Your task to perform on an android device: Open notification settings Image 0: 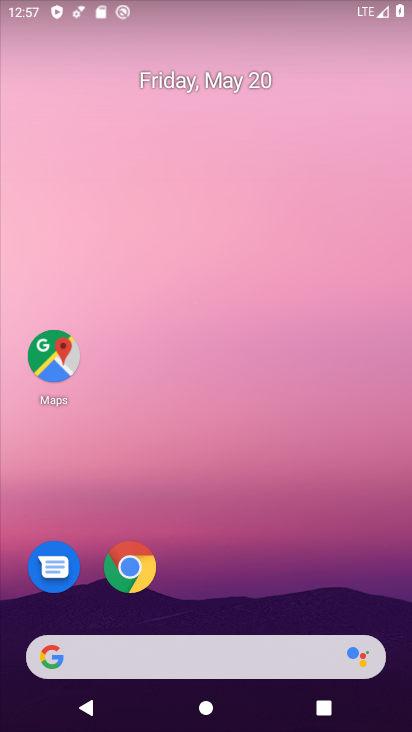
Step 0: drag from (248, 579) to (267, 126)
Your task to perform on an android device: Open notification settings Image 1: 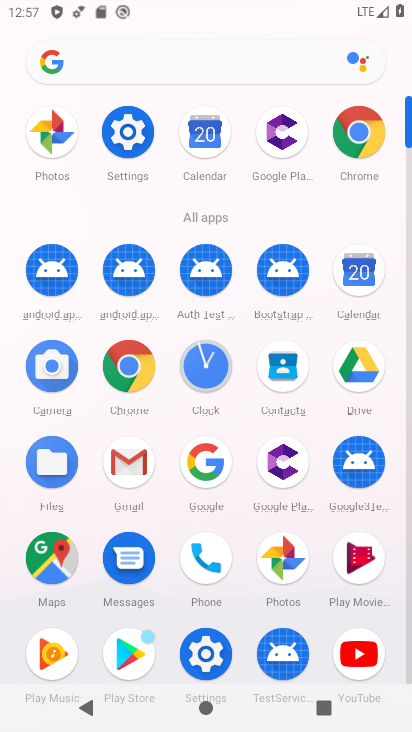
Step 1: click (127, 148)
Your task to perform on an android device: Open notification settings Image 2: 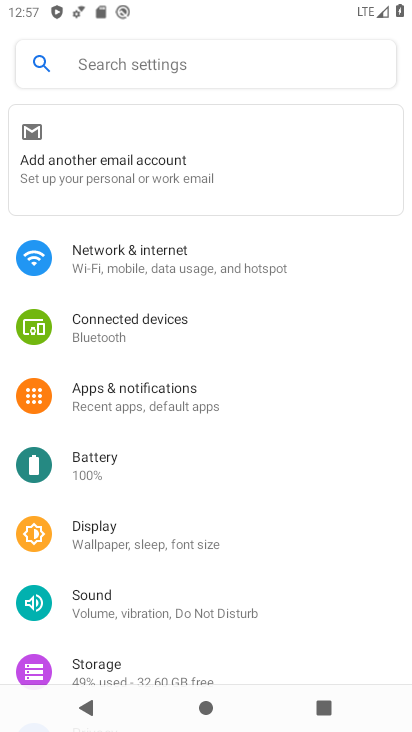
Step 2: click (171, 403)
Your task to perform on an android device: Open notification settings Image 3: 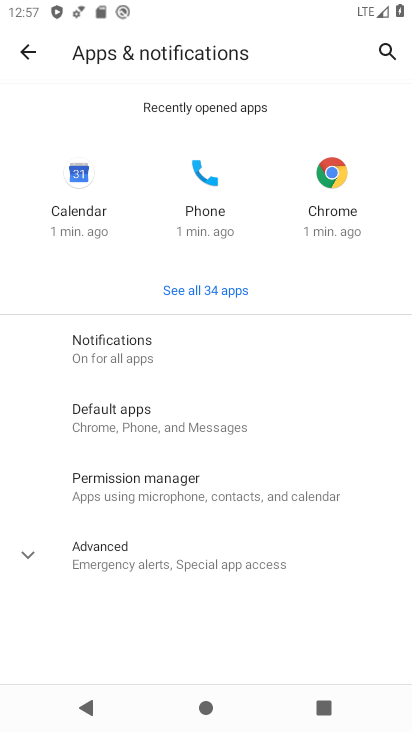
Step 3: click (213, 359)
Your task to perform on an android device: Open notification settings Image 4: 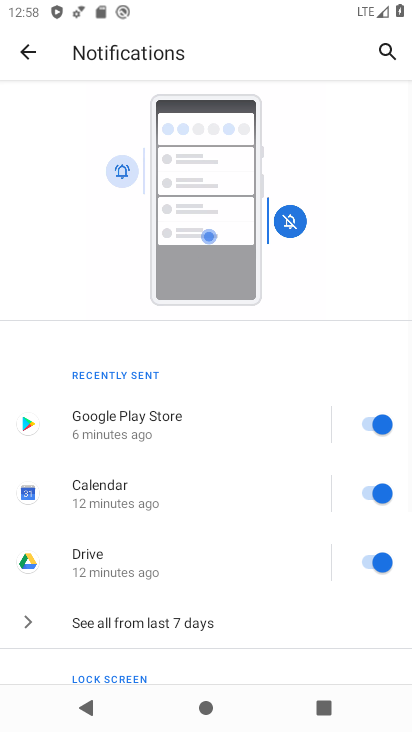
Step 4: task complete